Your task to perform on an android device: turn off priority inbox in the gmail app Image 0: 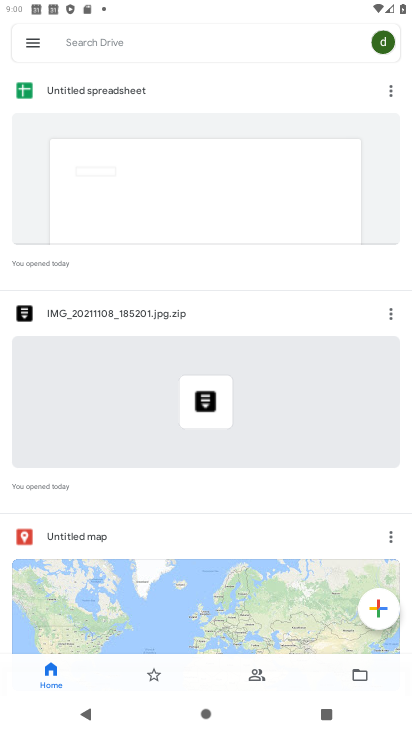
Step 0: press home button
Your task to perform on an android device: turn off priority inbox in the gmail app Image 1: 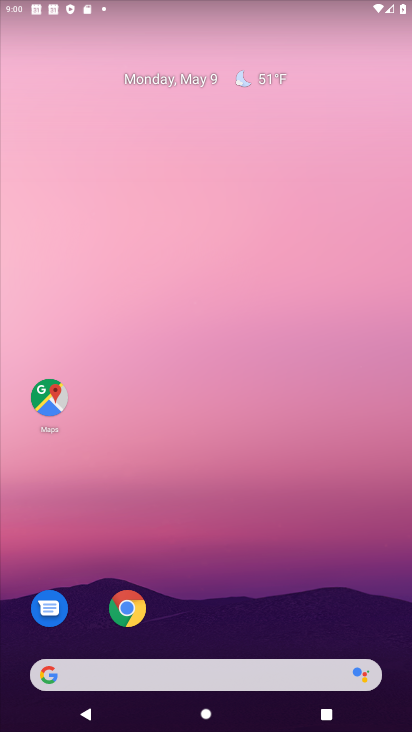
Step 1: drag from (328, 535) to (363, 113)
Your task to perform on an android device: turn off priority inbox in the gmail app Image 2: 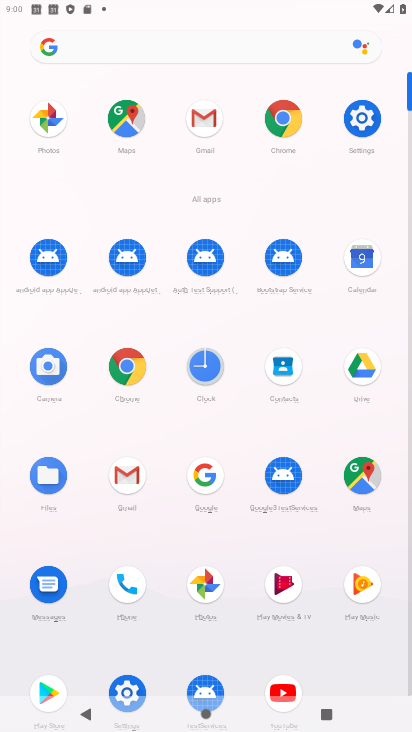
Step 2: click (212, 124)
Your task to perform on an android device: turn off priority inbox in the gmail app Image 3: 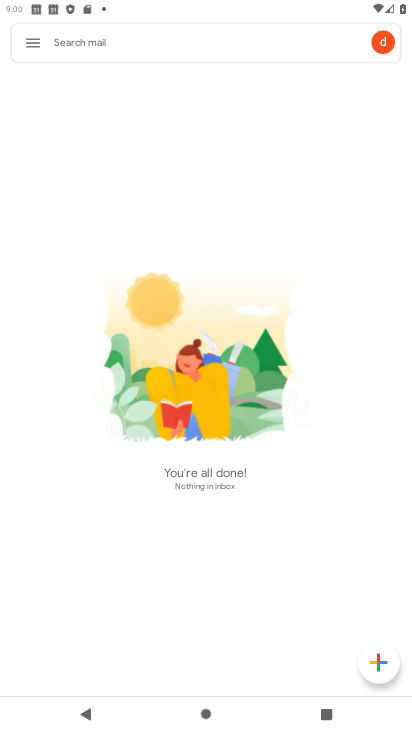
Step 3: click (19, 48)
Your task to perform on an android device: turn off priority inbox in the gmail app Image 4: 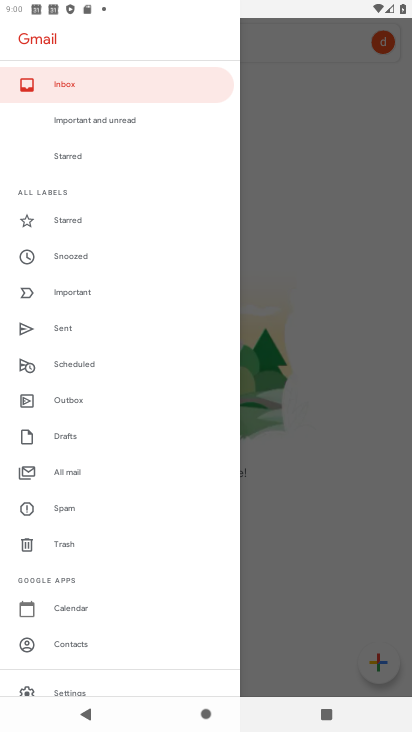
Step 4: drag from (104, 632) to (142, 315)
Your task to perform on an android device: turn off priority inbox in the gmail app Image 5: 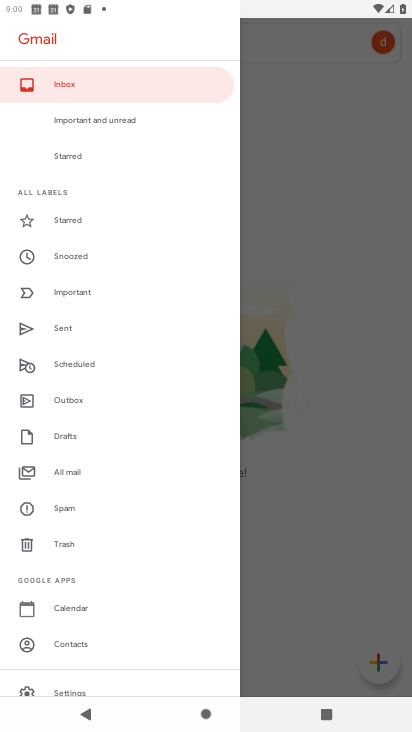
Step 5: drag from (54, 672) to (17, 177)
Your task to perform on an android device: turn off priority inbox in the gmail app Image 6: 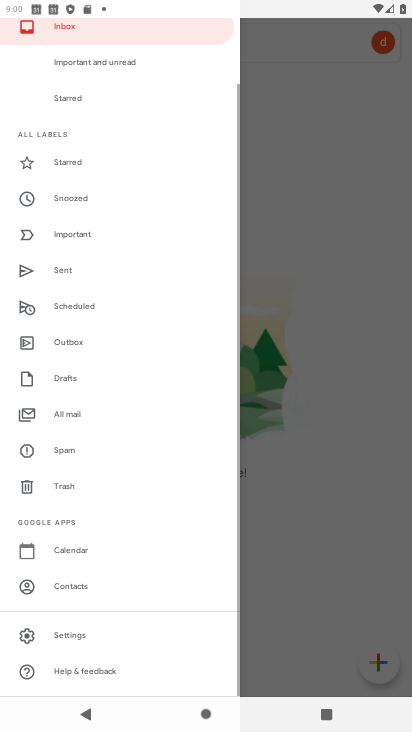
Step 6: click (71, 626)
Your task to perform on an android device: turn off priority inbox in the gmail app Image 7: 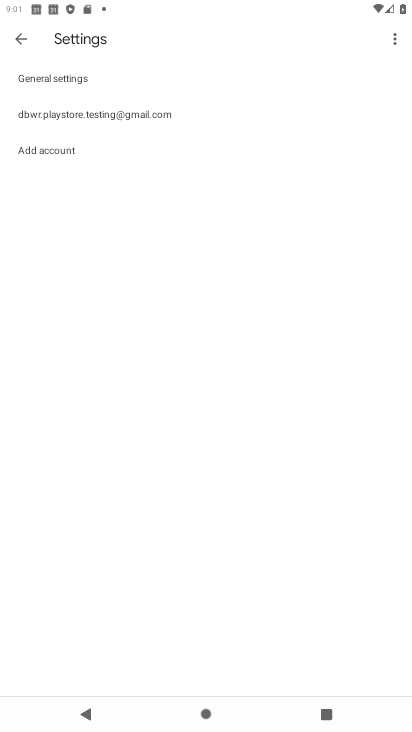
Step 7: click (97, 109)
Your task to perform on an android device: turn off priority inbox in the gmail app Image 8: 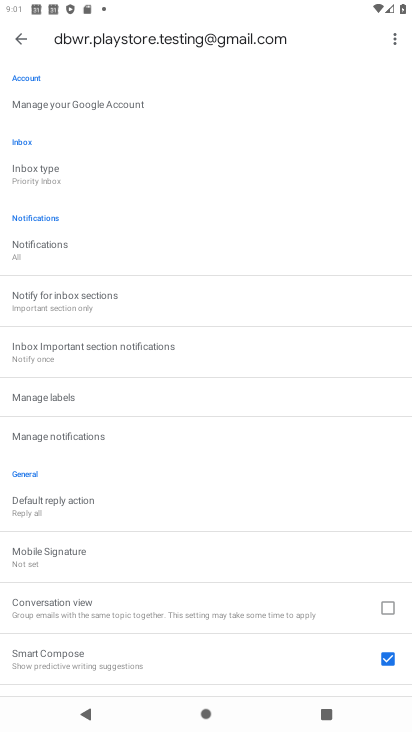
Step 8: click (21, 174)
Your task to perform on an android device: turn off priority inbox in the gmail app Image 9: 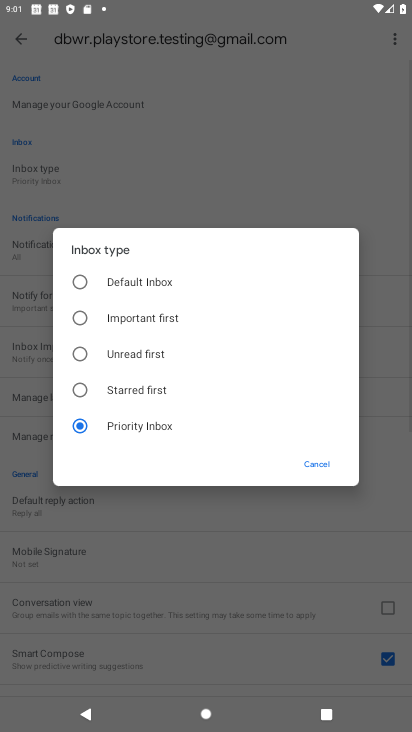
Step 9: click (82, 281)
Your task to perform on an android device: turn off priority inbox in the gmail app Image 10: 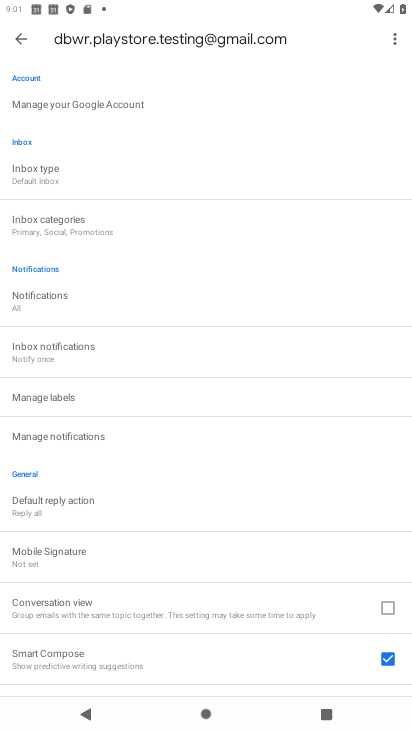
Step 10: task complete